Your task to perform on an android device: Open calendar and show me the first week of next month Image 0: 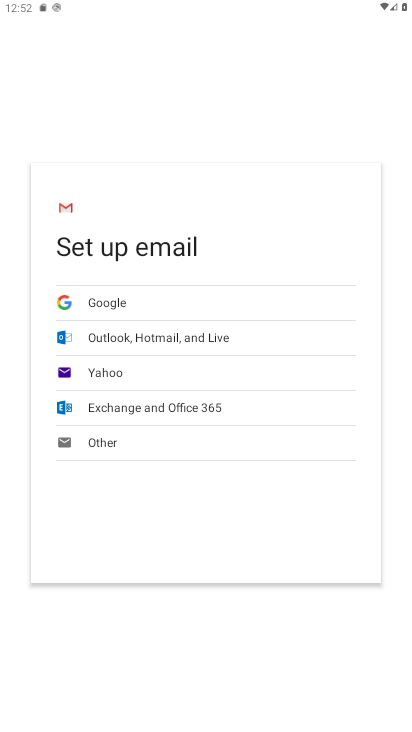
Step 0: click (397, 375)
Your task to perform on an android device: Open calendar and show me the first week of next month Image 1: 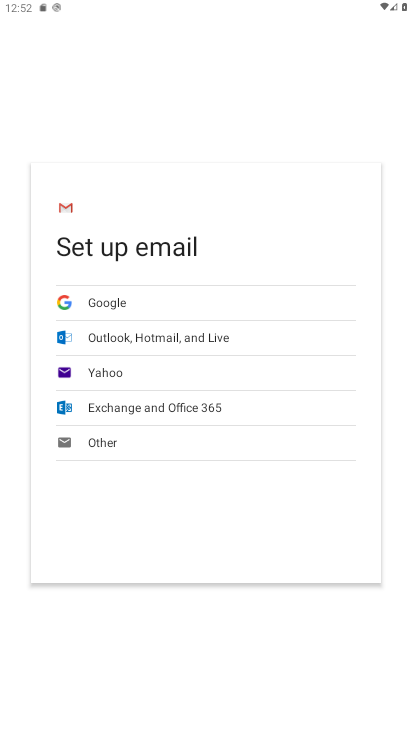
Step 1: press back button
Your task to perform on an android device: Open calendar and show me the first week of next month Image 2: 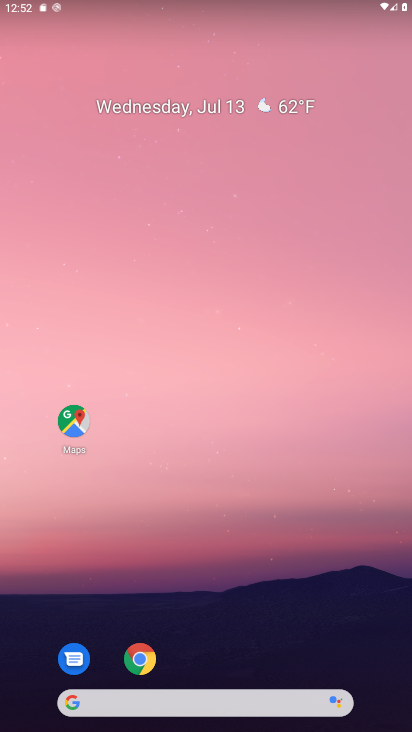
Step 2: drag from (249, 675) to (182, 107)
Your task to perform on an android device: Open calendar and show me the first week of next month Image 3: 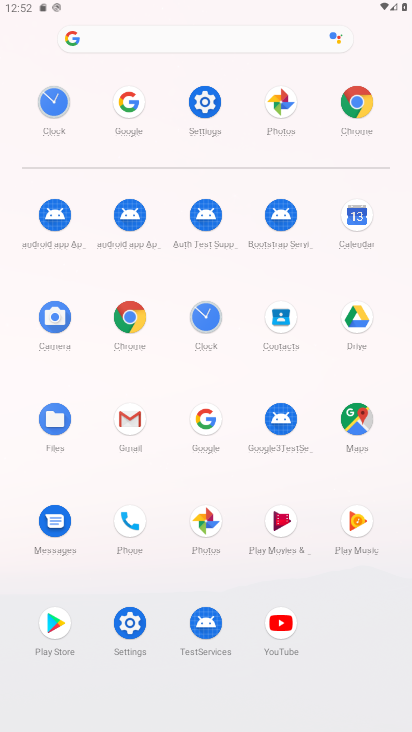
Step 3: click (353, 212)
Your task to perform on an android device: Open calendar and show me the first week of next month Image 4: 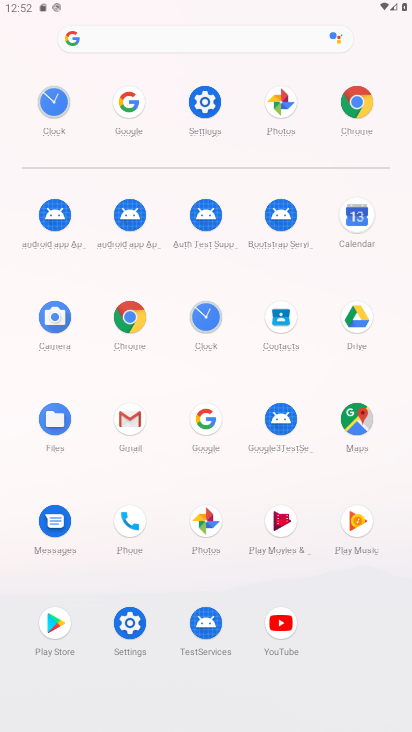
Step 4: click (357, 209)
Your task to perform on an android device: Open calendar and show me the first week of next month Image 5: 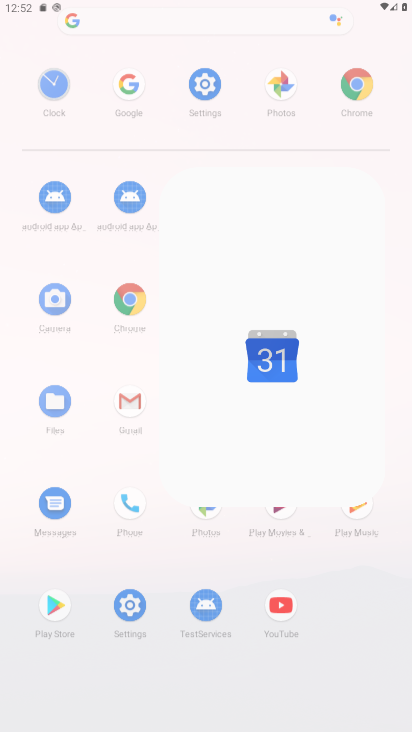
Step 5: click (357, 209)
Your task to perform on an android device: Open calendar and show me the first week of next month Image 6: 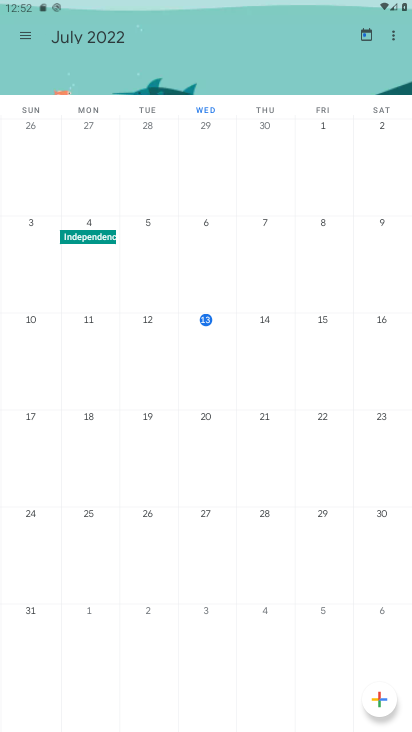
Step 6: drag from (321, 396) to (4, 280)
Your task to perform on an android device: Open calendar and show me the first week of next month Image 7: 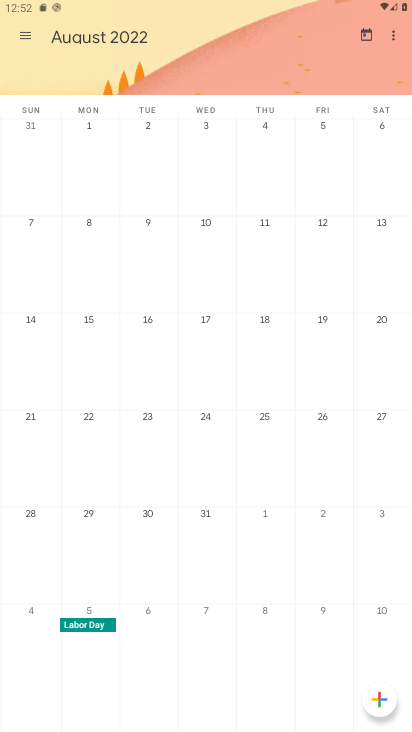
Step 7: click (152, 124)
Your task to perform on an android device: Open calendar and show me the first week of next month Image 8: 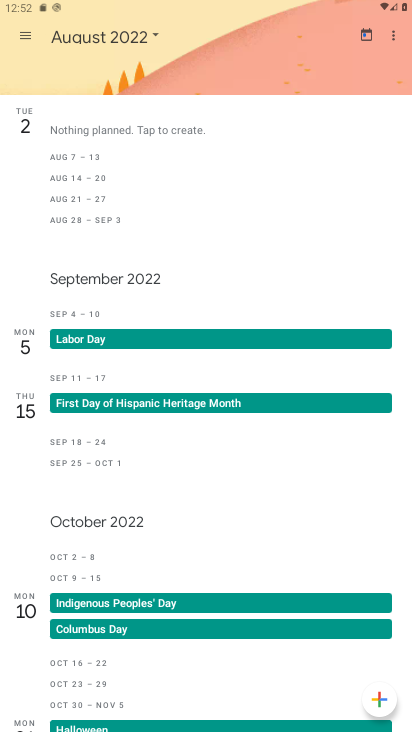
Step 8: click (144, 107)
Your task to perform on an android device: Open calendar and show me the first week of next month Image 9: 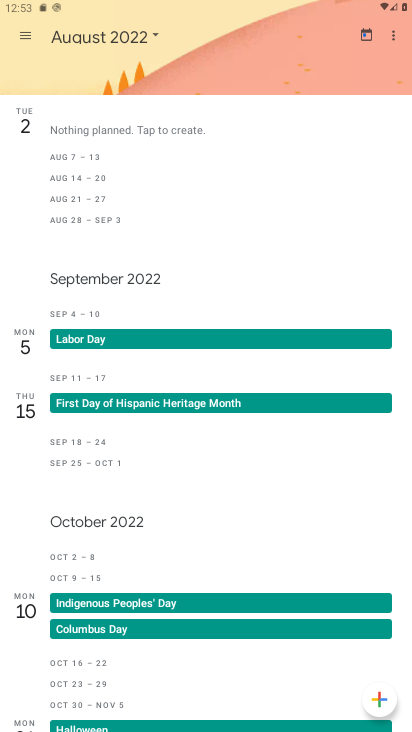
Step 9: task complete